Your task to perform on an android device: Search for the best rated headphones on Amazon. Image 0: 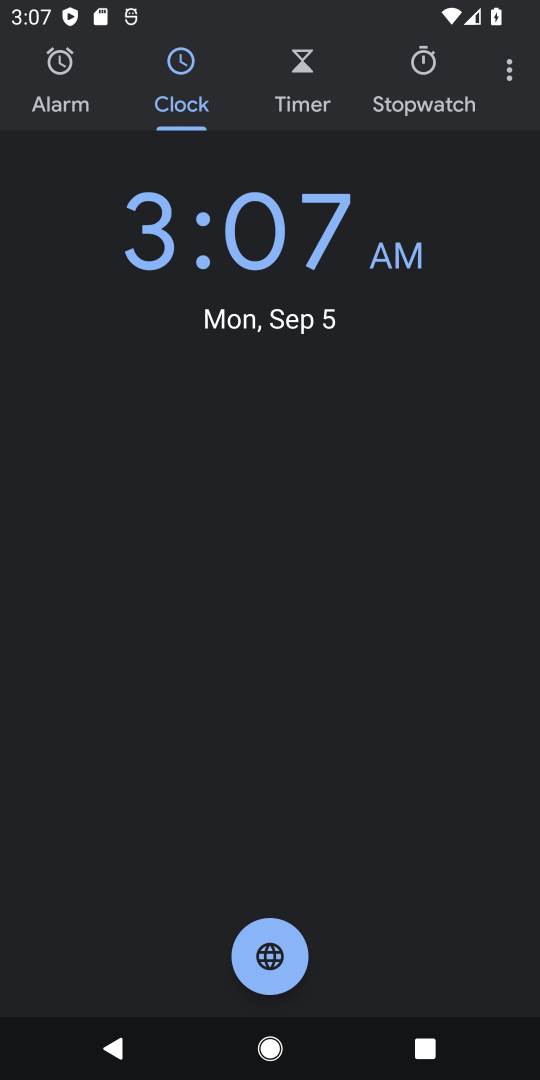
Step 0: press home button
Your task to perform on an android device: Search for the best rated headphones on Amazon. Image 1: 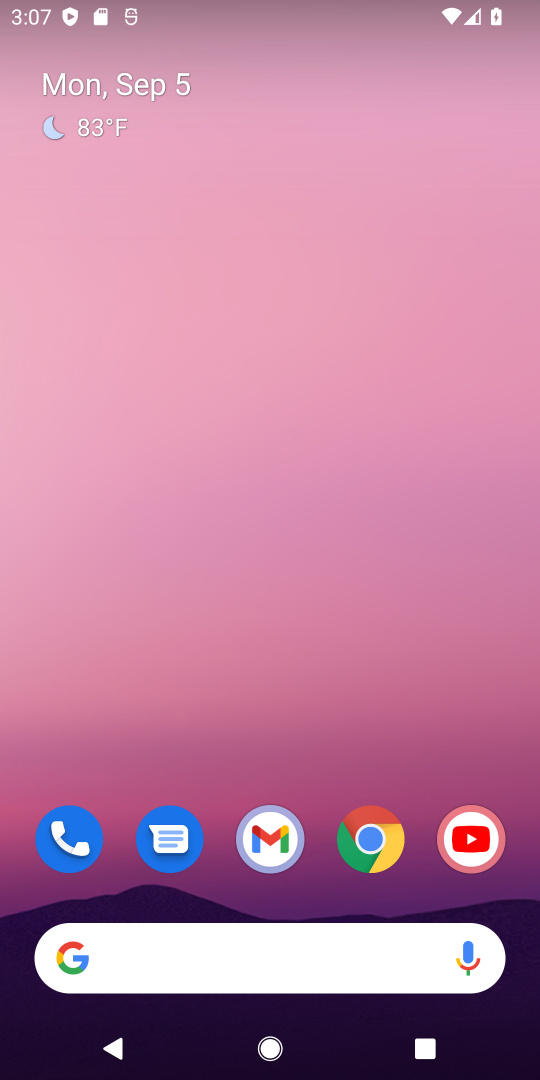
Step 1: click (371, 853)
Your task to perform on an android device: Search for the best rated headphones on Amazon. Image 2: 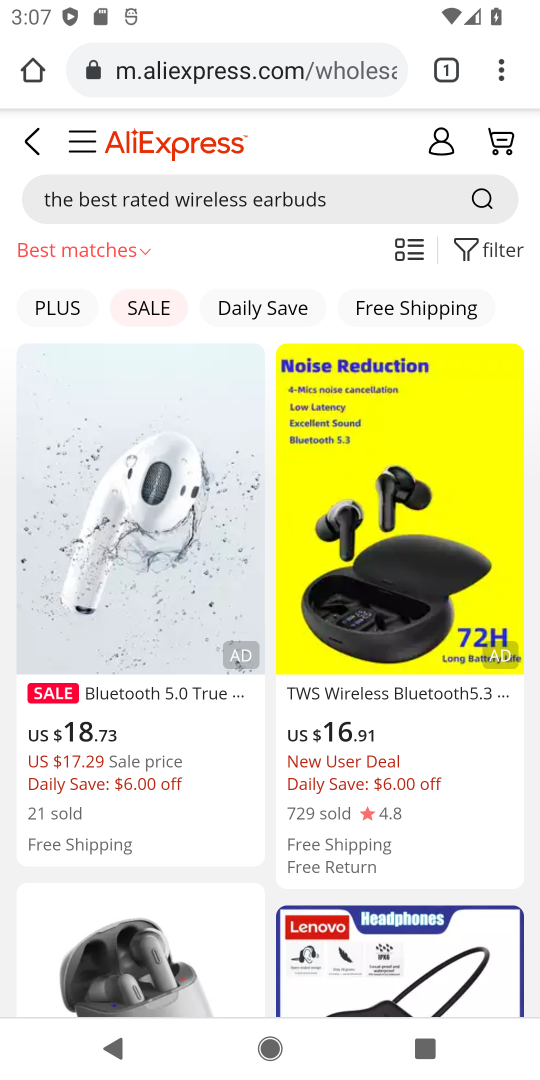
Step 2: click (208, 64)
Your task to perform on an android device: Search for the best rated headphones on Amazon. Image 3: 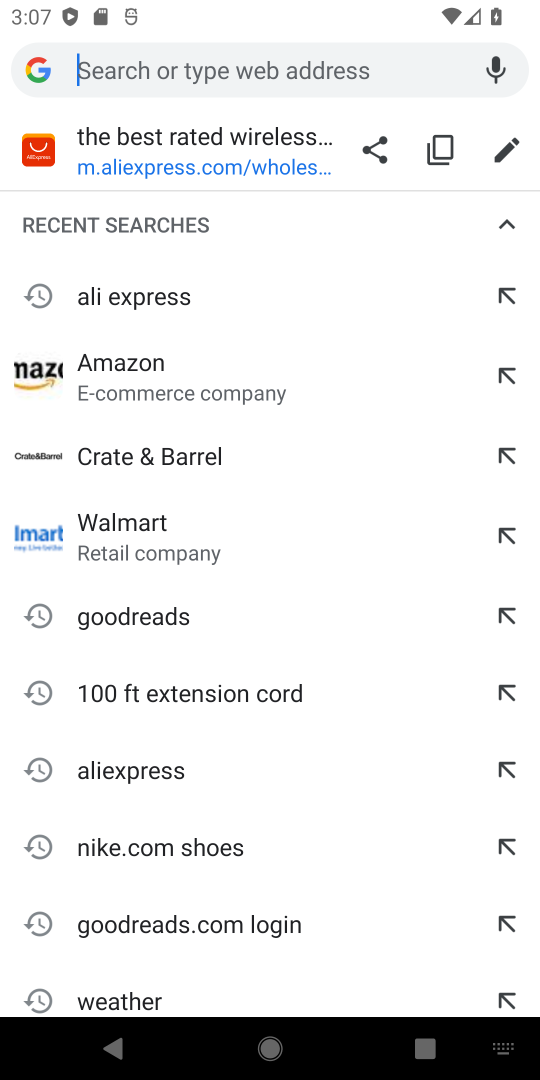
Step 3: type "Amazon"
Your task to perform on an android device: Search for the best rated headphones on Amazon. Image 4: 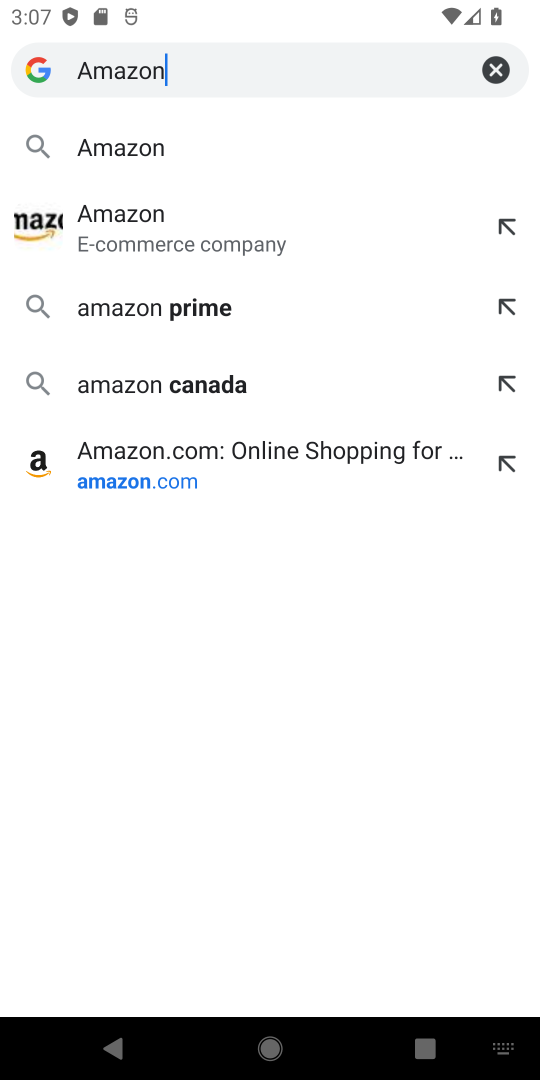
Step 4: click (152, 220)
Your task to perform on an android device: Search for the best rated headphones on Amazon. Image 5: 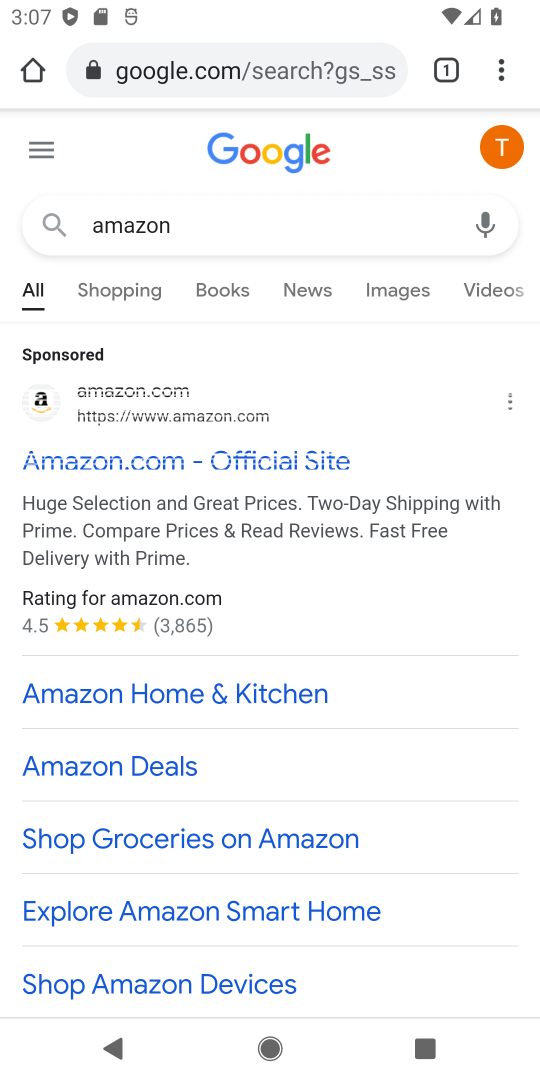
Step 5: click (98, 461)
Your task to perform on an android device: Search for the best rated headphones on Amazon. Image 6: 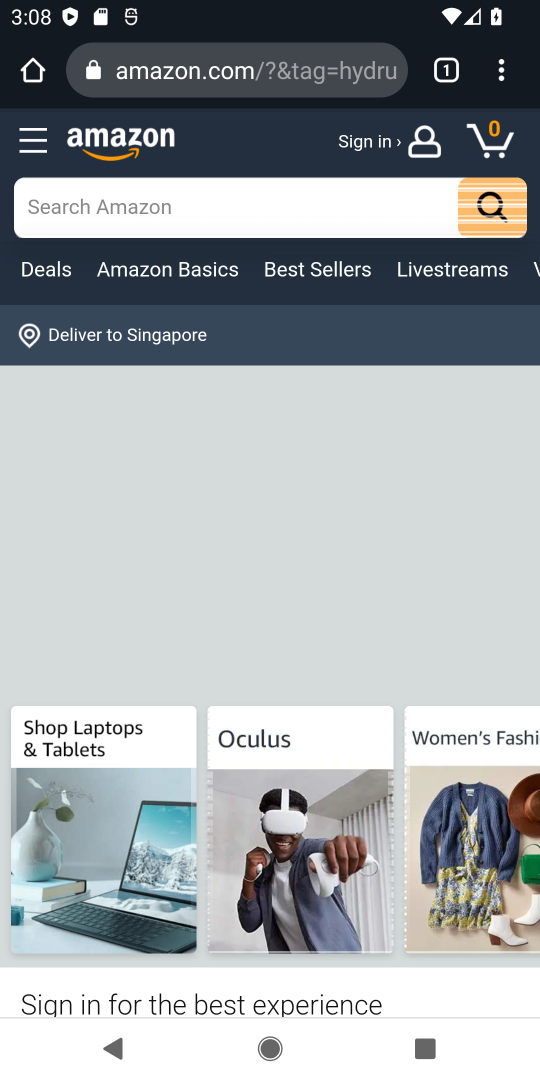
Step 6: click (138, 199)
Your task to perform on an android device: Search for the best rated headphones on Amazon. Image 7: 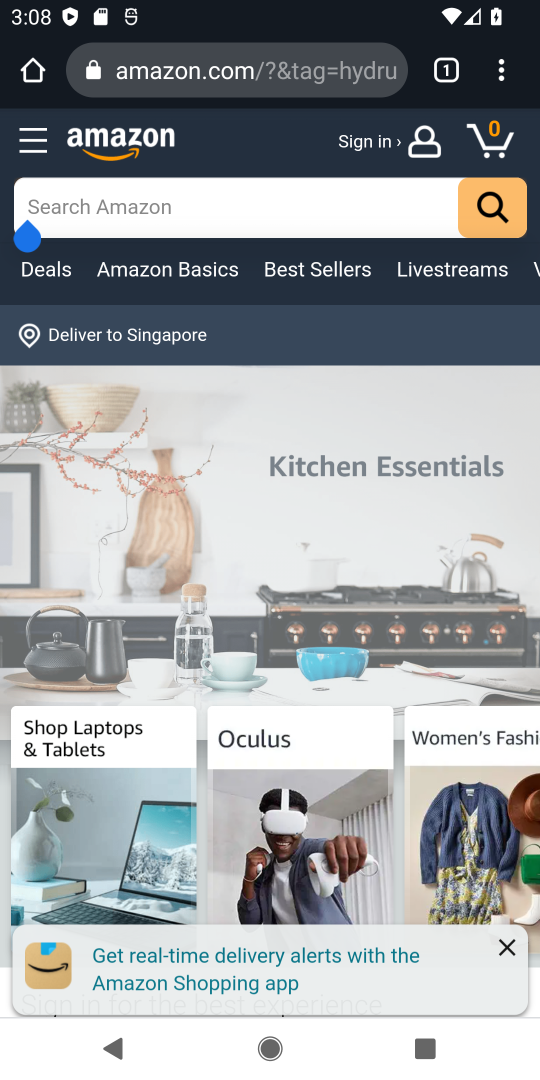
Step 7: drag from (64, 1032) to (523, 1078)
Your task to perform on an android device: Search for the best rated headphones on Amazon. Image 8: 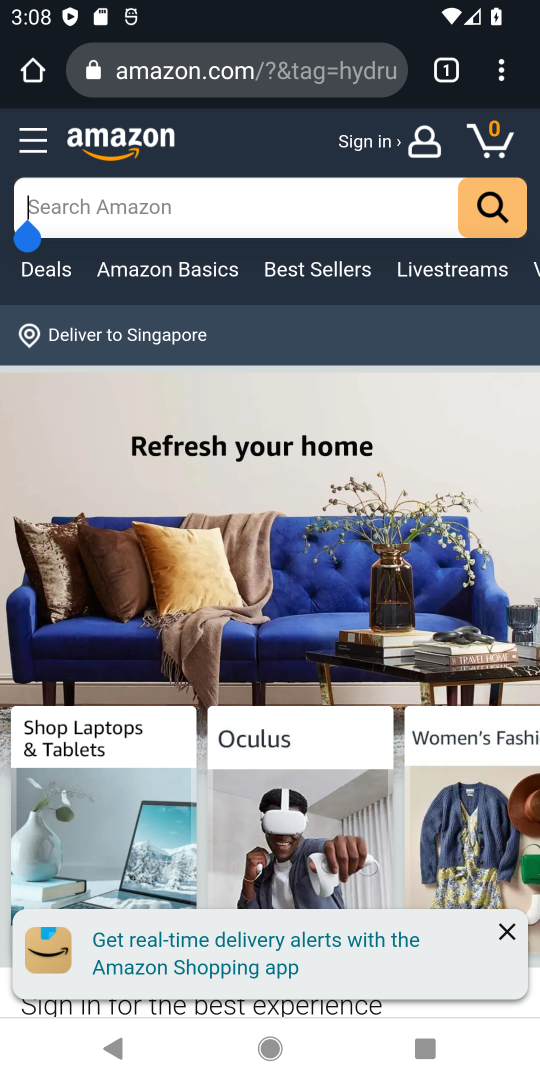
Step 8: type "the best rated headphones"
Your task to perform on an android device: Search for the best rated headphones on Amazon. Image 9: 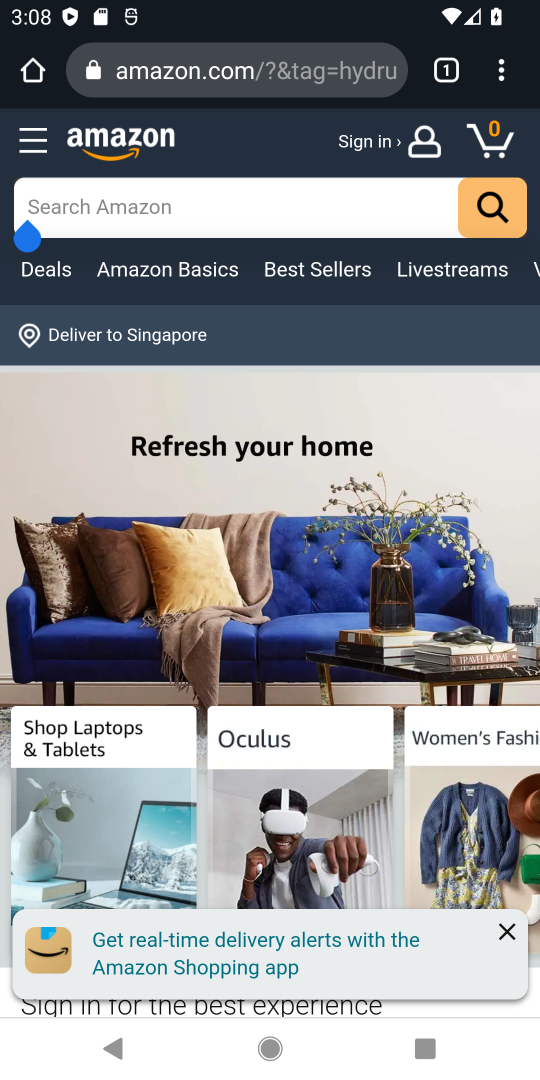
Step 9: drag from (523, 1078) to (321, 1060)
Your task to perform on an android device: Search for the best rated headphones on Amazon. Image 10: 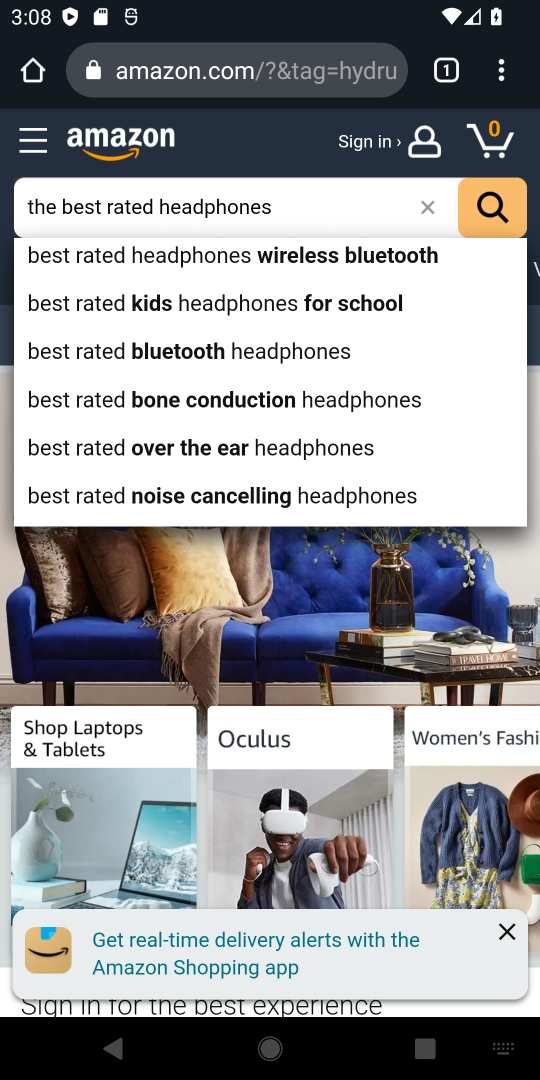
Step 10: click (493, 203)
Your task to perform on an android device: Search for the best rated headphones on Amazon. Image 11: 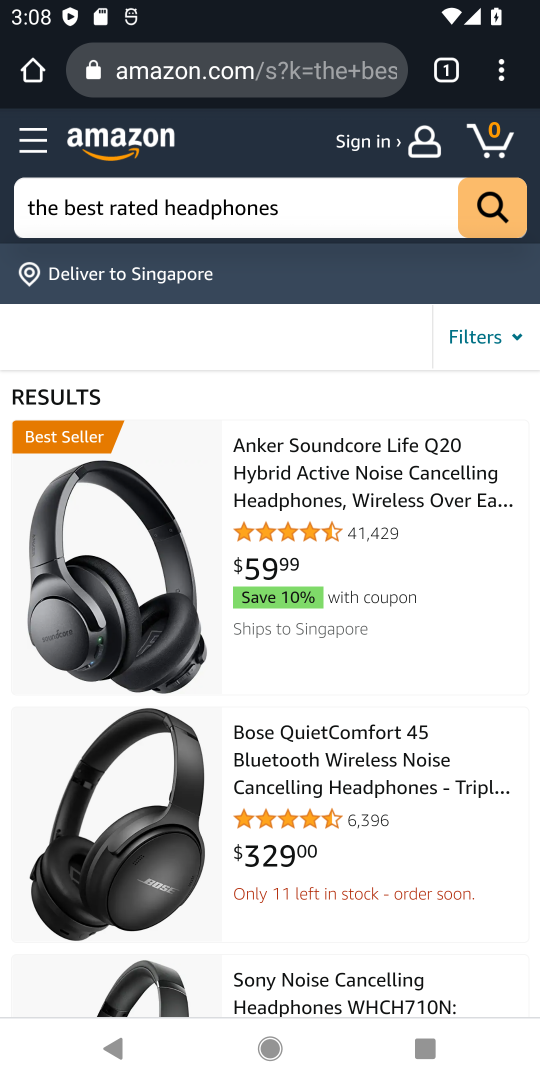
Step 11: task complete